Your task to perform on an android device: Open CNN.com Image 0: 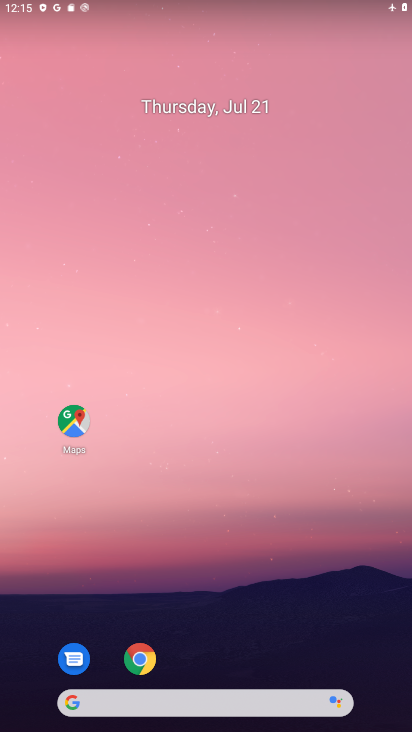
Step 0: click (143, 658)
Your task to perform on an android device: Open CNN.com Image 1: 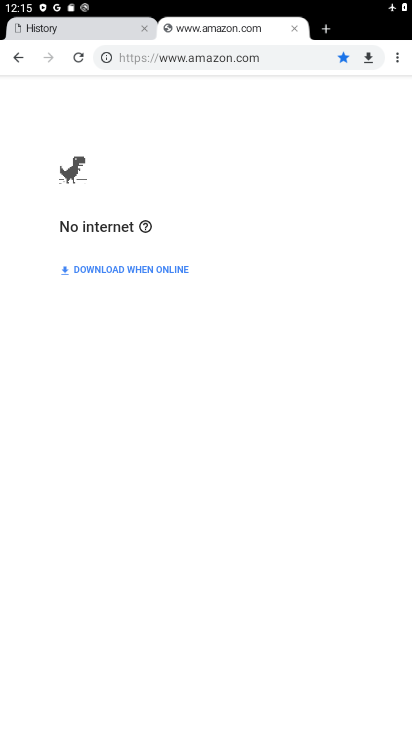
Step 1: click (255, 59)
Your task to perform on an android device: Open CNN.com Image 2: 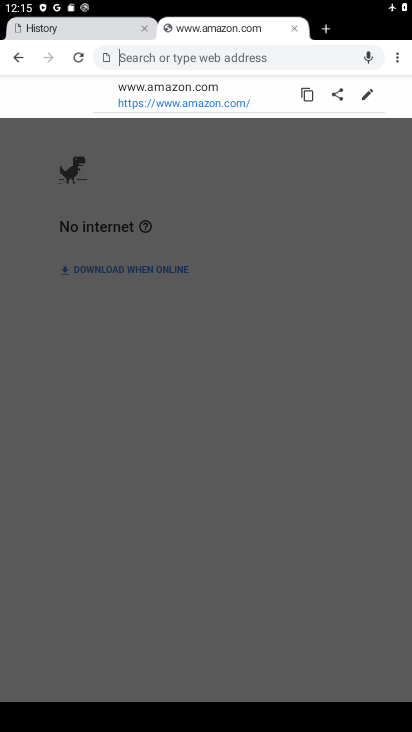
Step 2: type "cnn.com"
Your task to perform on an android device: Open CNN.com Image 3: 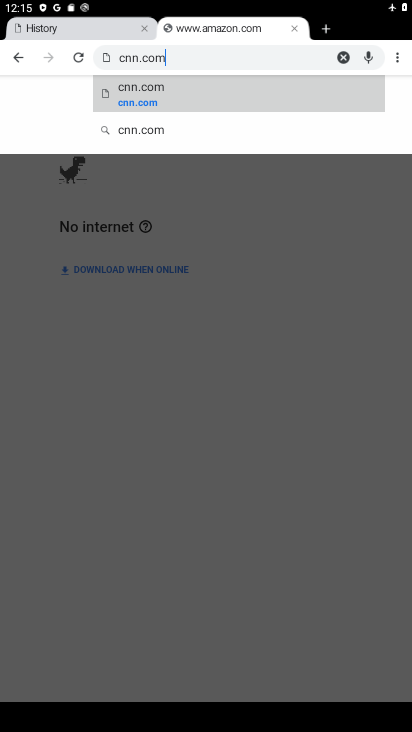
Step 3: click (138, 86)
Your task to perform on an android device: Open CNN.com Image 4: 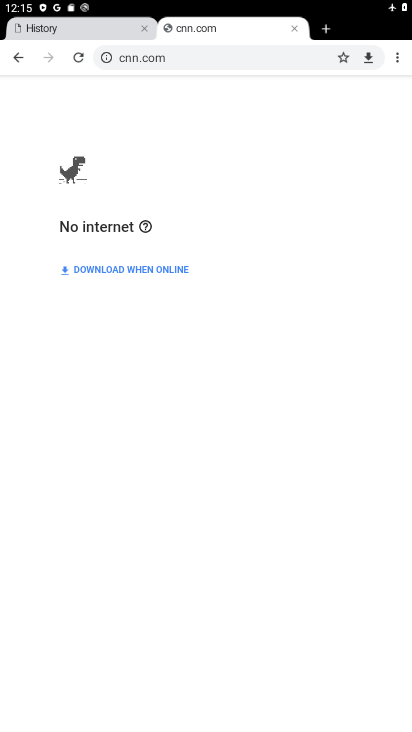
Step 4: task complete